Your task to perform on an android device: uninstall "Expedia: Hotels, Flights & Car" Image 0: 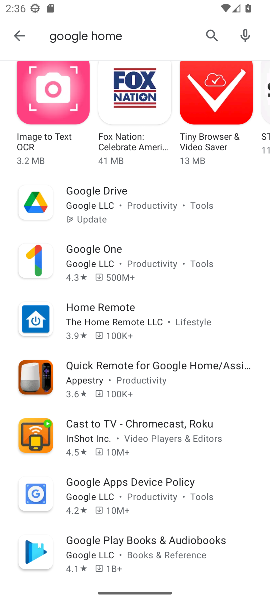
Step 0: press home button
Your task to perform on an android device: uninstall "Expedia: Hotels, Flights & Car" Image 1: 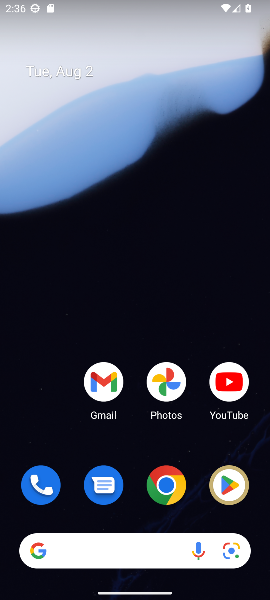
Step 1: click (241, 489)
Your task to perform on an android device: uninstall "Expedia: Hotels, Flights & Car" Image 2: 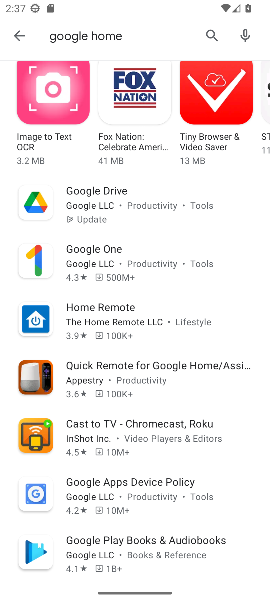
Step 2: click (210, 30)
Your task to perform on an android device: uninstall "Expedia: Hotels, Flights & Car" Image 3: 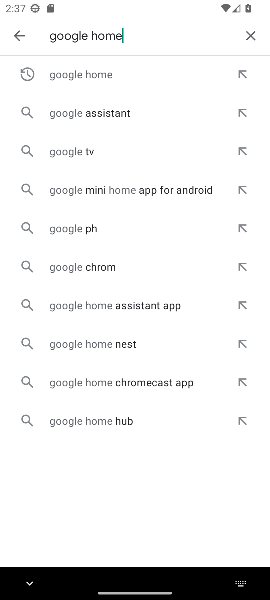
Step 3: click (240, 38)
Your task to perform on an android device: uninstall "Expedia: Hotels, Flights & Car" Image 4: 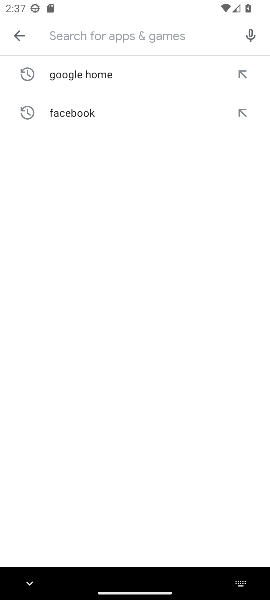
Step 4: type "Expedia: Hotels, Flights & Car"
Your task to perform on an android device: uninstall "Expedia: Hotels, Flights & Car" Image 5: 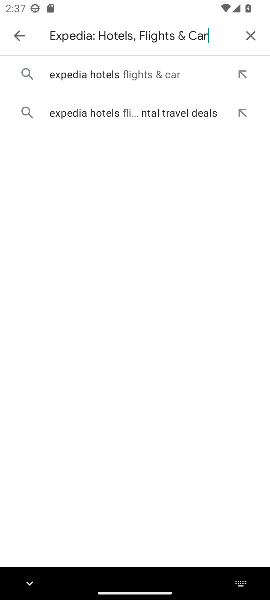
Step 5: click (117, 74)
Your task to perform on an android device: uninstall "Expedia: Hotels, Flights & Car" Image 6: 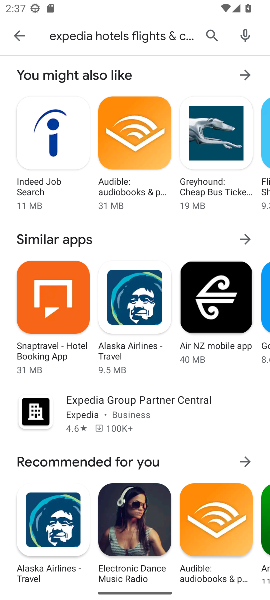
Step 6: task complete